Your task to perform on an android device: Open calendar and show me the fourth week of next month Image 0: 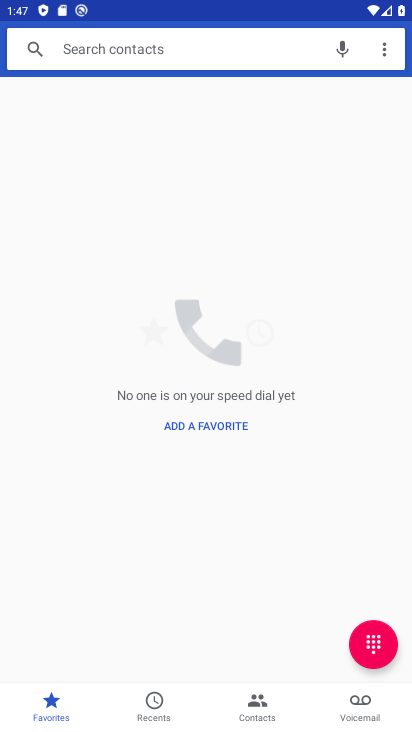
Step 0: press home button
Your task to perform on an android device: Open calendar and show me the fourth week of next month Image 1: 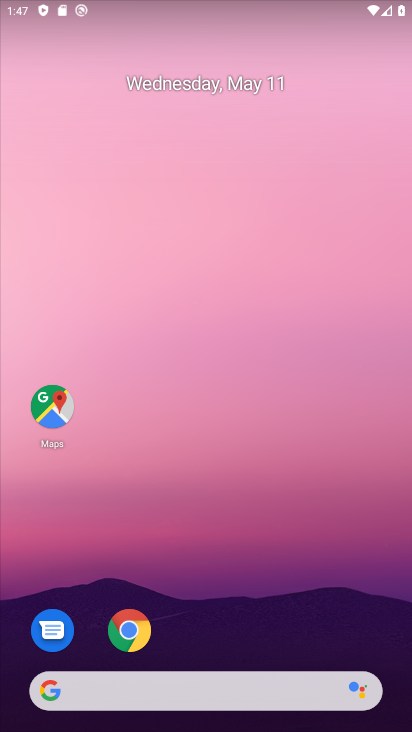
Step 1: drag from (226, 725) to (234, 171)
Your task to perform on an android device: Open calendar and show me the fourth week of next month Image 2: 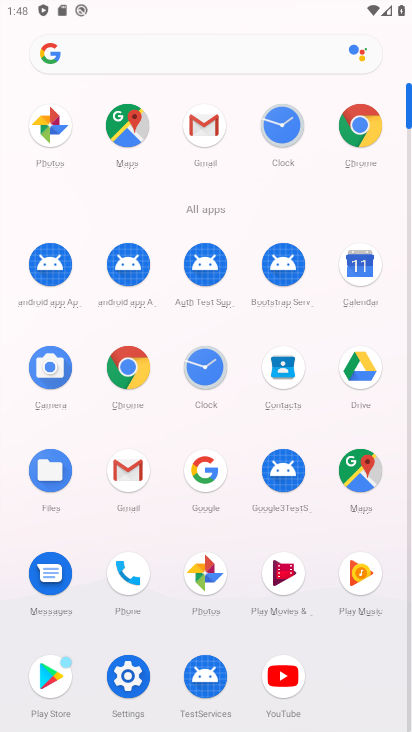
Step 2: click (356, 264)
Your task to perform on an android device: Open calendar and show me the fourth week of next month Image 3: 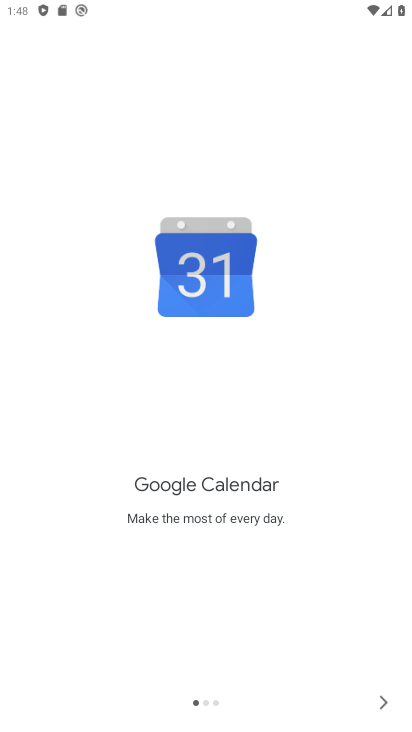
Step 3: click (387, 704)
Your task to perform on an android device: Open calendar and show me the fourth week of next month Image 4: 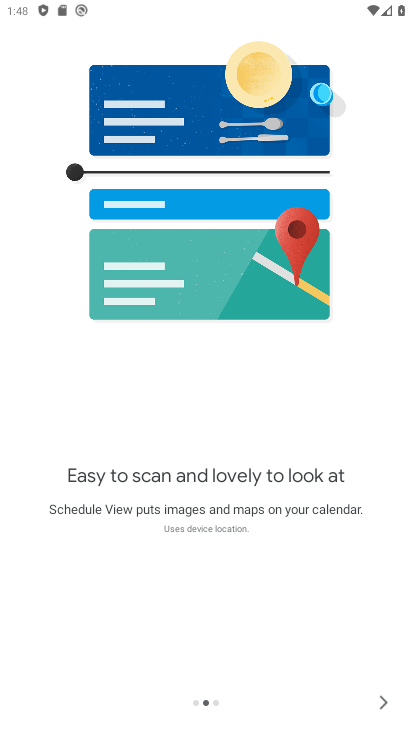
Step 4: click (386, 703)
Your task to perform on an android device: Open calendar and show me the fourth week of next month Image 5: 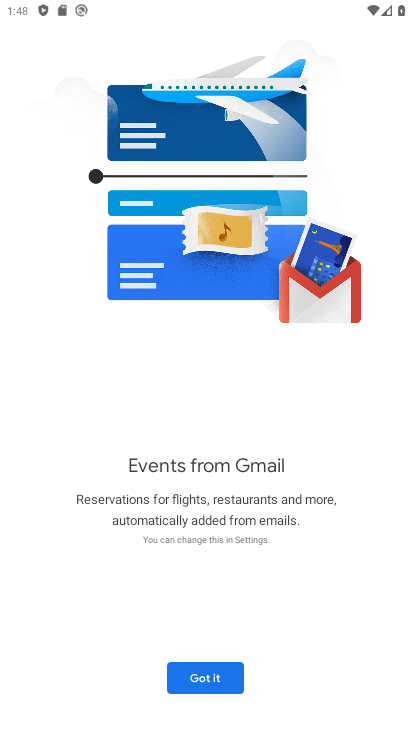
Step 5: click (202, 679)
Your task to perform on an android device: Open calendar and show me the fourth week of next month Image 6: 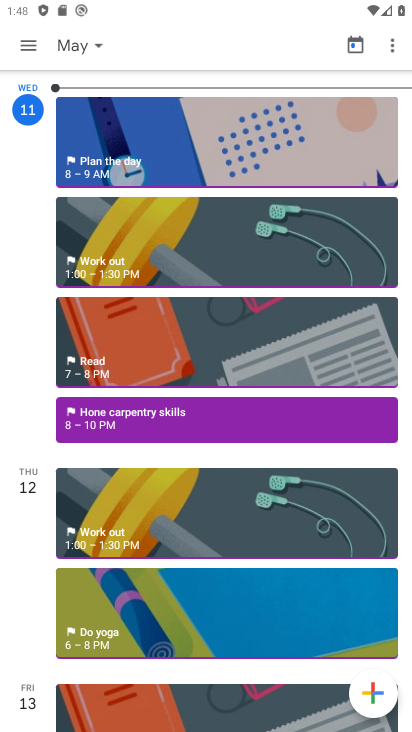
Step 6: click (74, 42)
Your task to perform on an android device: Open calendar and show me the fourth week of next month Image 7: 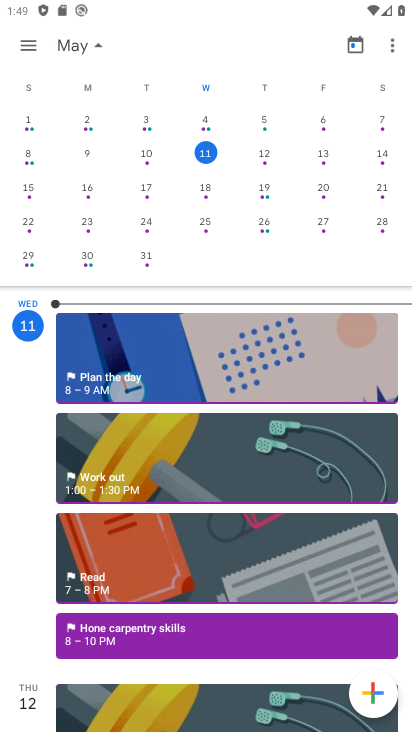
Step 7: drag from (354, 191) to (0, 168)
Your task to perform on an android device: Open calendar and show me the fourth week of next month Image 8: 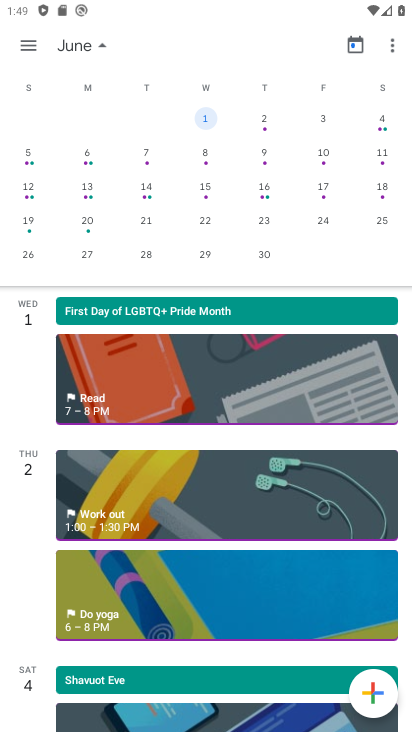
Step 8: click (86, 252)
Your task to perform on an android device: Open calendar and show me the fourth week of next month Image 9: 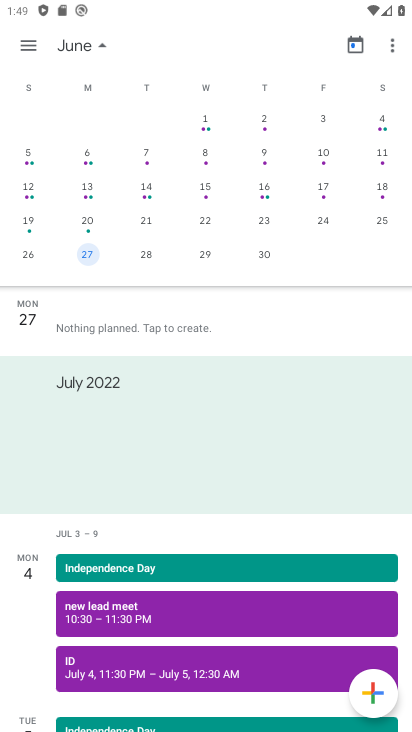
Step 9: task complete